Your task to perform on an android device: Search for flights from London to Paris Image 0: 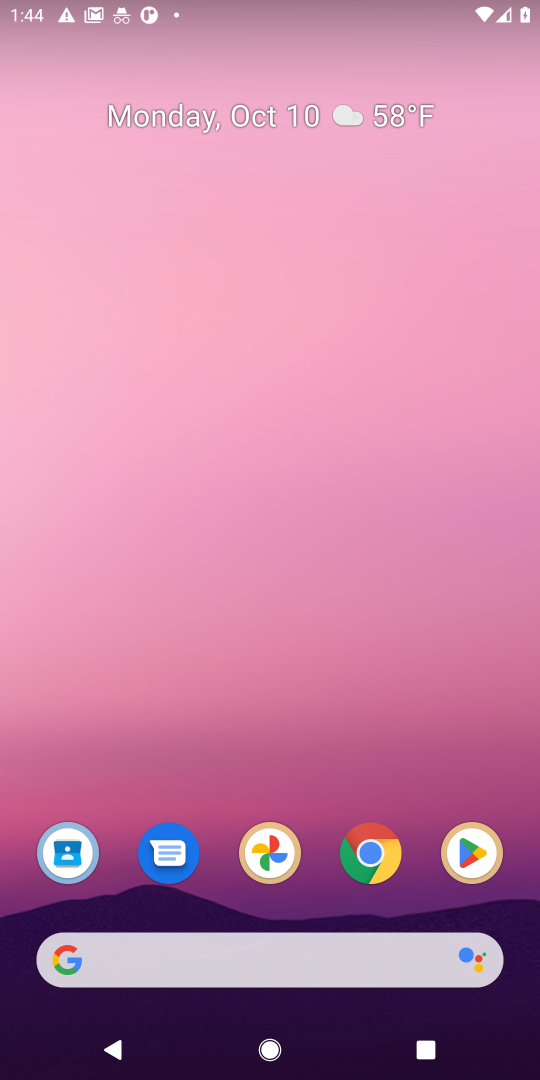
Step 0: click (362, 843)
Your task to perform on an android device: Search for flights from London to Paris Image 1: 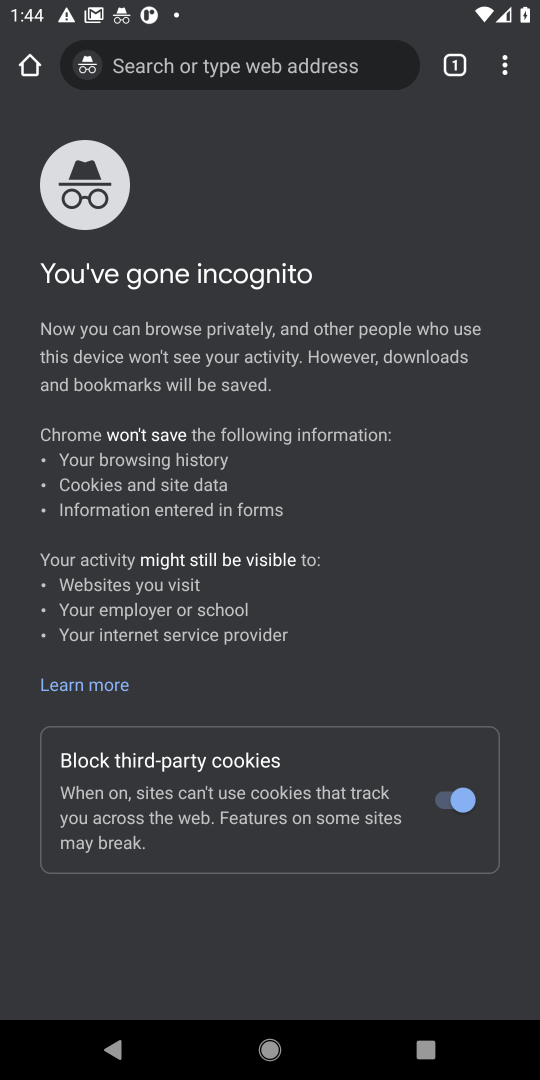
Step 1: click (24, 71)
Your task to perform on an android device: Search for flights from London to Paris Image 2: 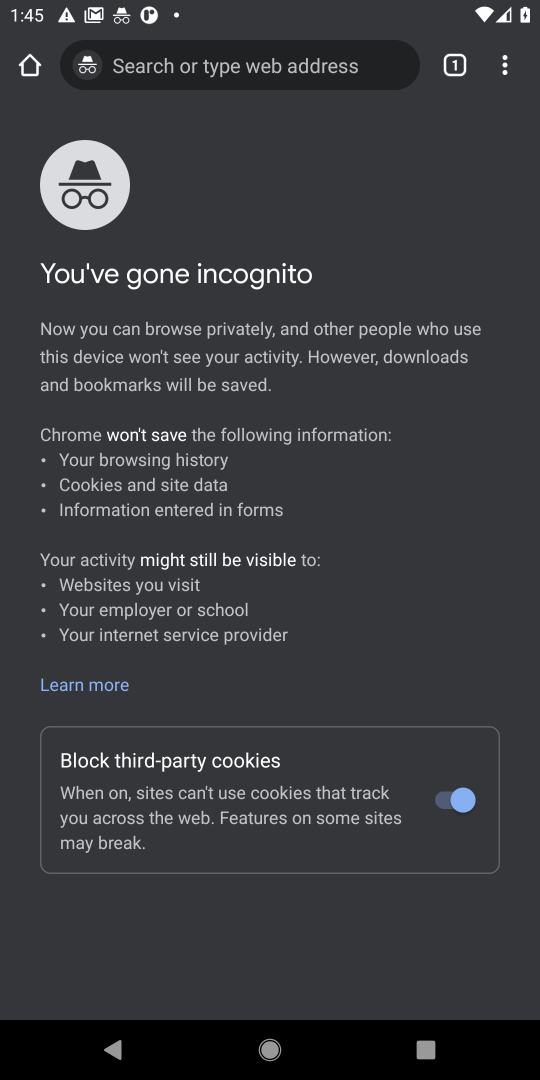
Step 2: click (450, 57)
Your task to perform on an android device: Search for flights from London to Paris Image 3: 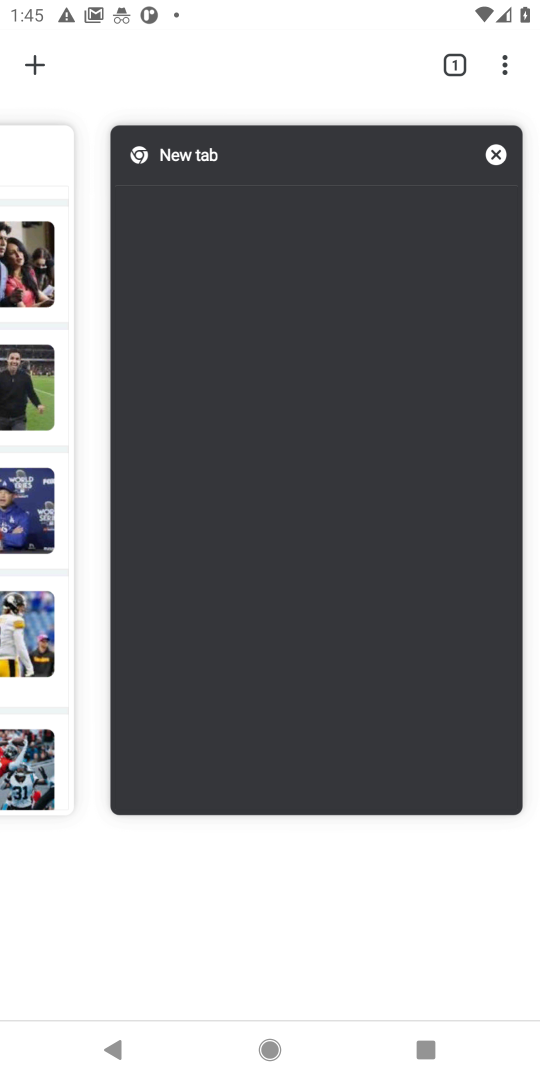
Step 3: click (495, 155)
Your task to perform on an android device: Search for flights from London to Paris Image 4: 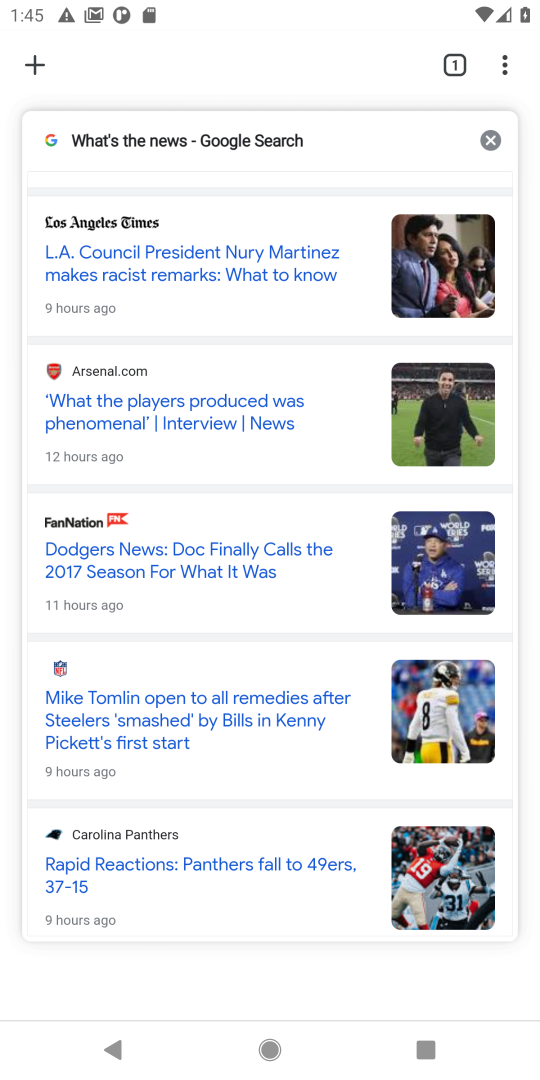
Step 4: click (344, 303)
Your task to perform on an android device: Search for flights from London to Paris Image 5: 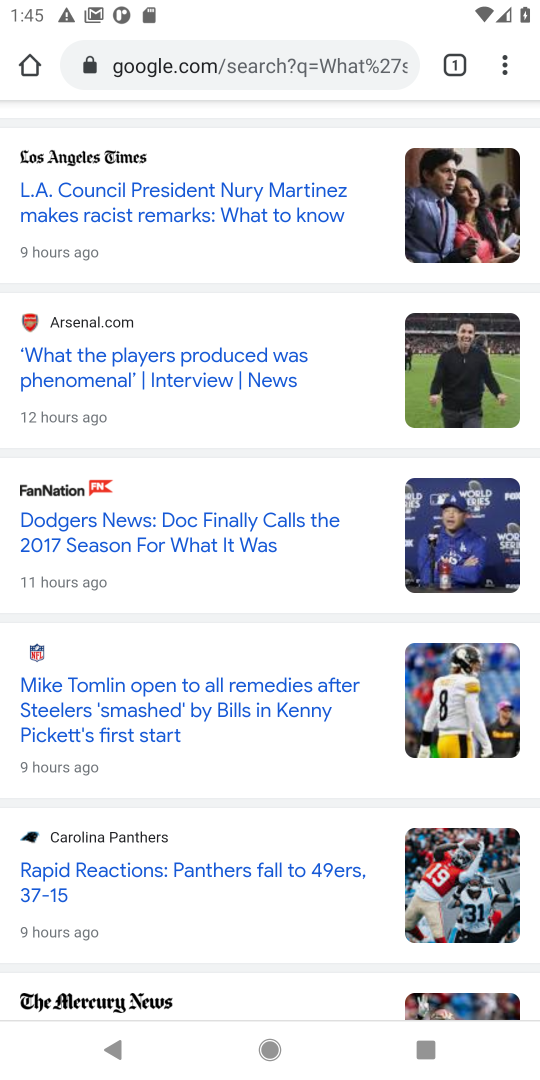
Step 5: click (161, 63)
Your task to perform on an android device: Search for flights from London to Paris Image 6: 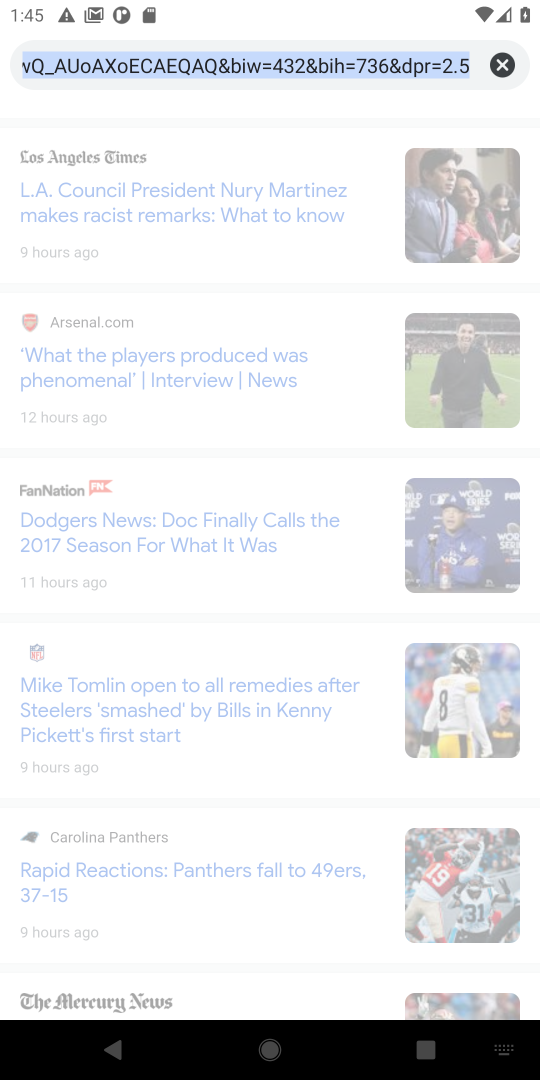
Step 6: type "flights from London to Paris"
Your task to perform on an android device: Search for flights from London to Paris Image 7: 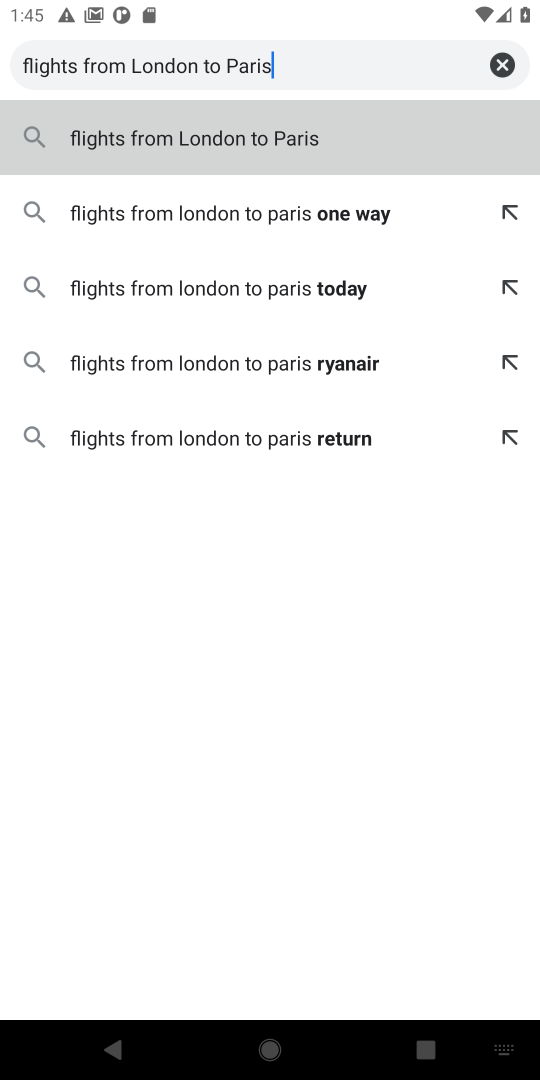
Step 7: press enter
Your task to perform on an android device: Search for flights from London to Paris Image 8: 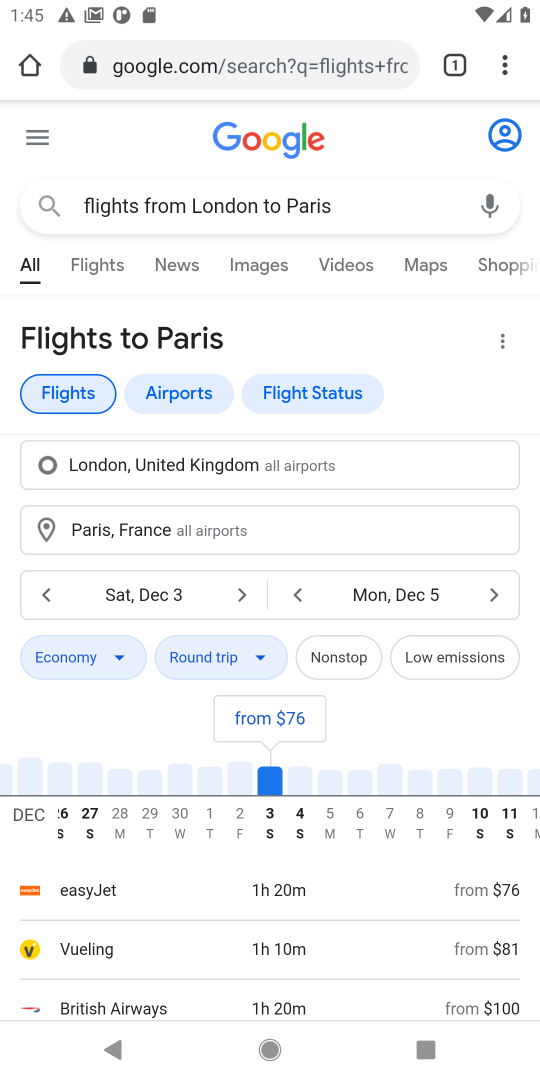
Step 8: drag from (388, 706) to (356, 131)
Your task to perform on an android device: Search for flights from London to Paris Image 9: 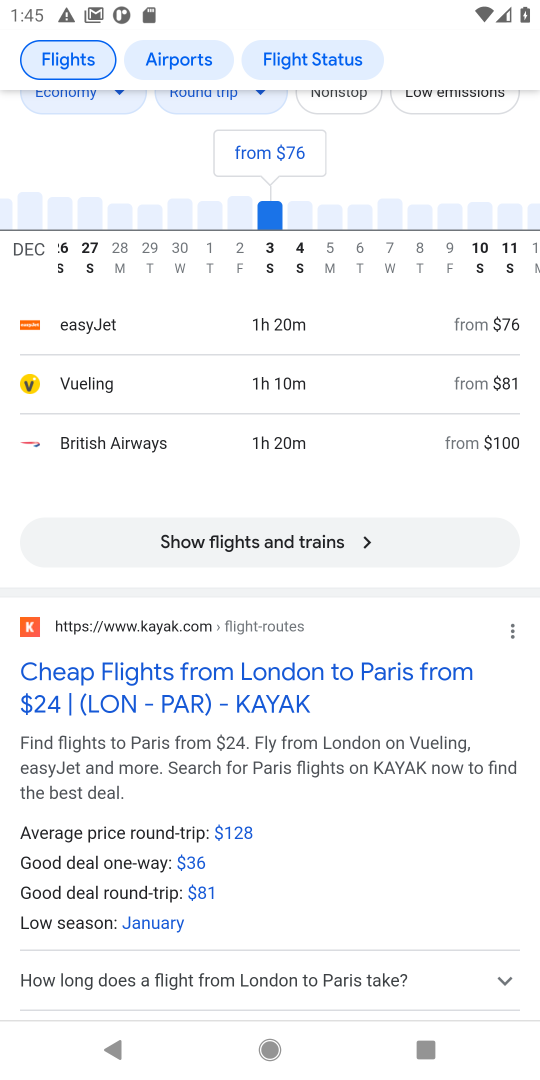
Step 9: click (256, 536)
Your task to perform on an android device: Search for flights from London to Paris Image 10: 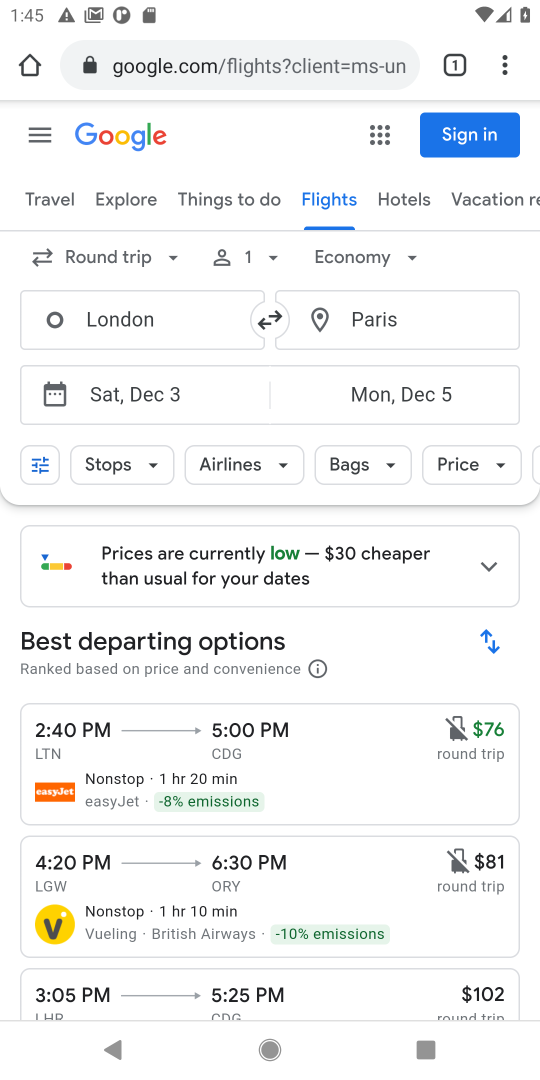
Step 10: task complete